Your task to perform on an android device: Add "razer blade" to the cart on newegg, then select checkout. Image 0: 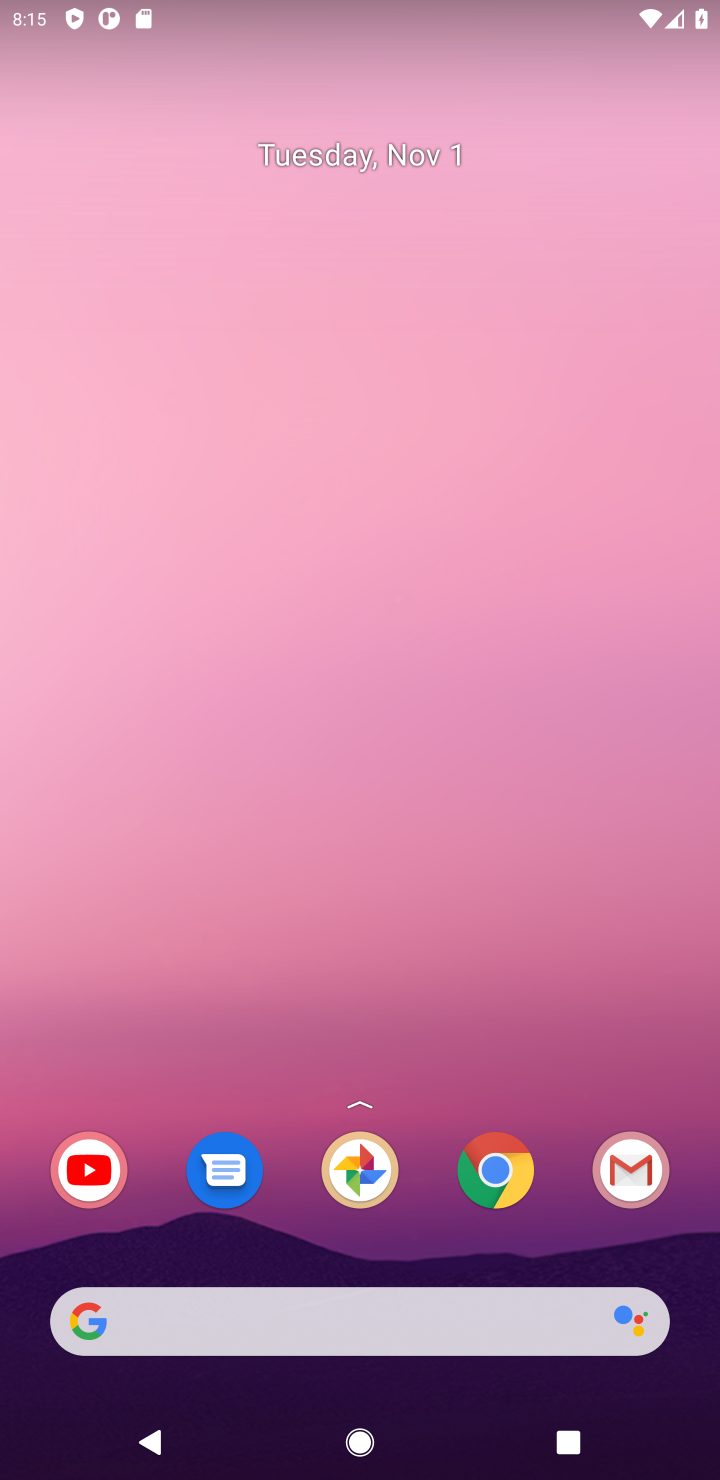
Step 0: click (516, 1175)
Your task to perform on an android device: Add "razer blade" to the cart on newegg, then select checkout. Image 1: 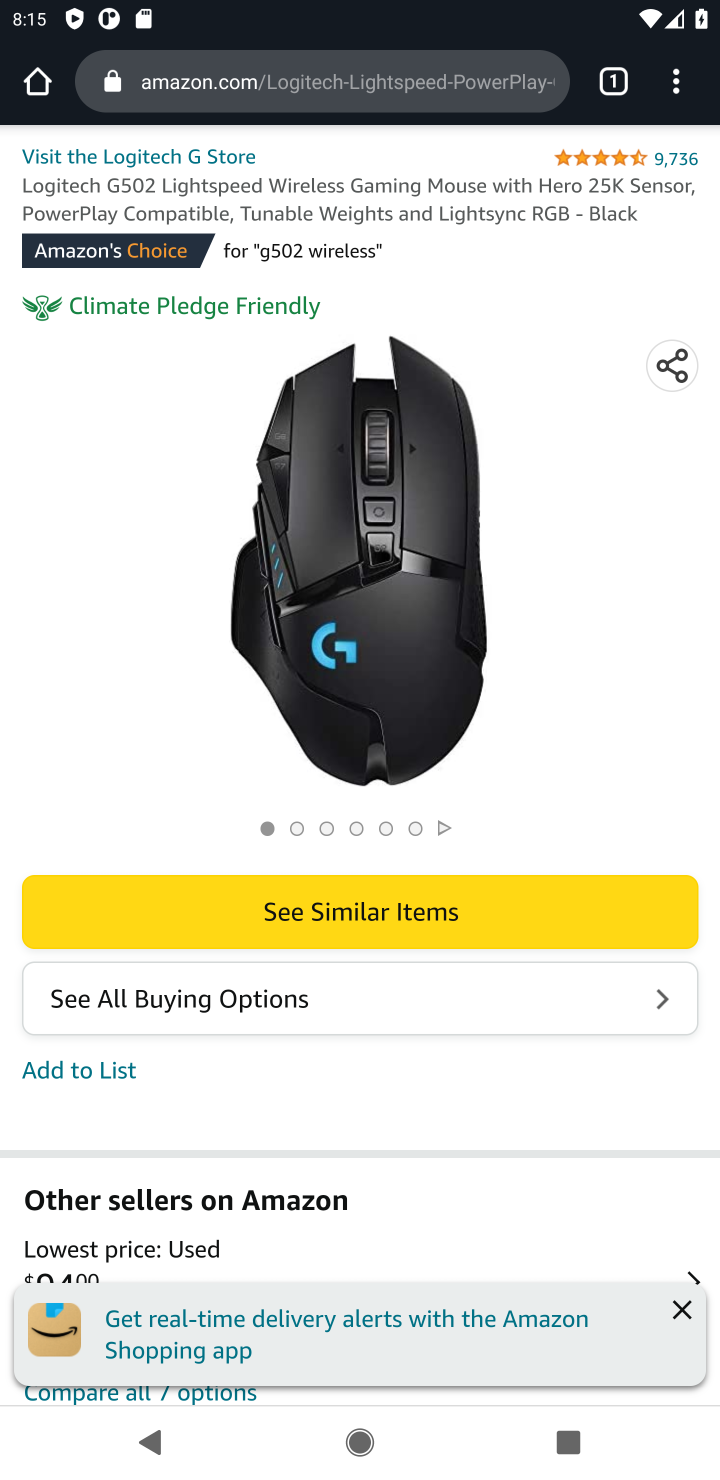
Step 1: click (416, 100)
Your task to perform on an android device: Add "razer blade" to the cart on newegg, then select checkout. Image 2: 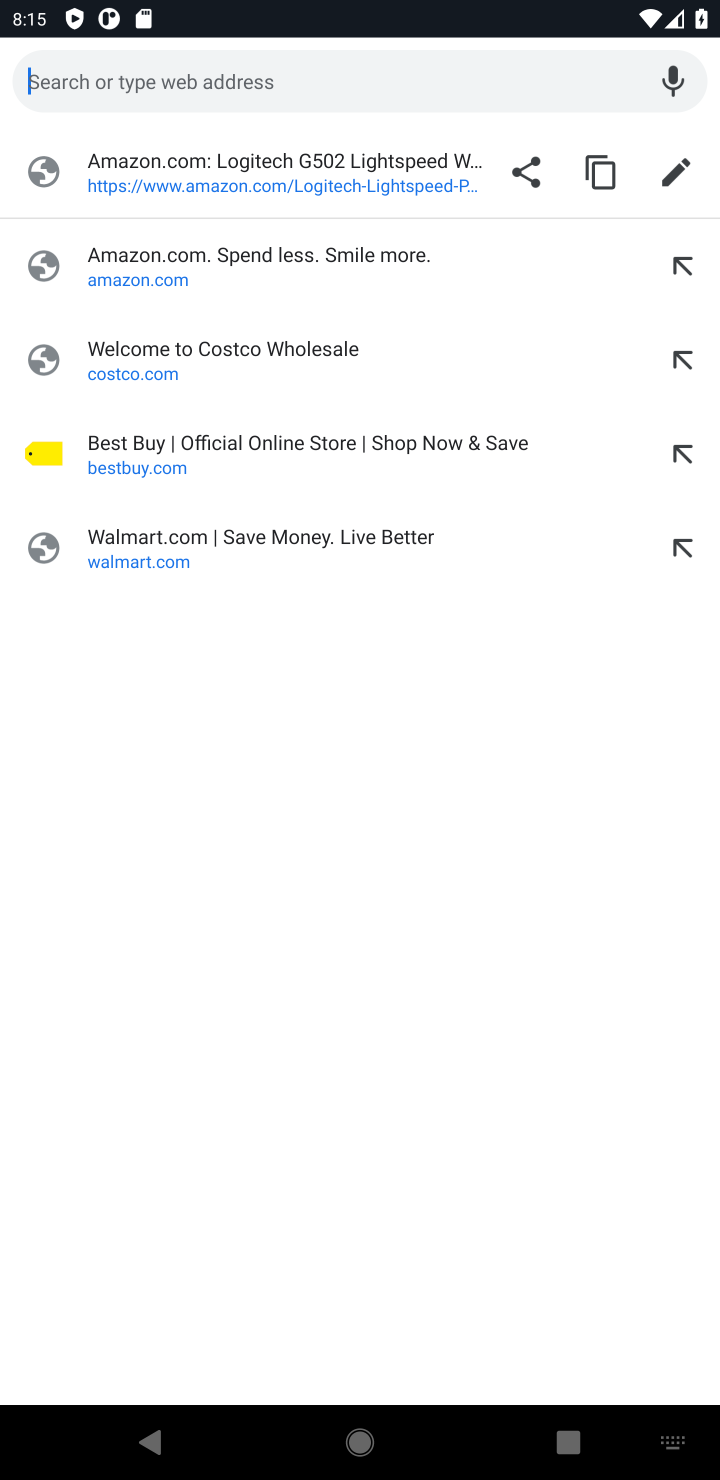
Step 2: type "newegg"
Your task to perform on an android device: Add "razer blade" to the cart on newegg, then select checkout. Image 3: 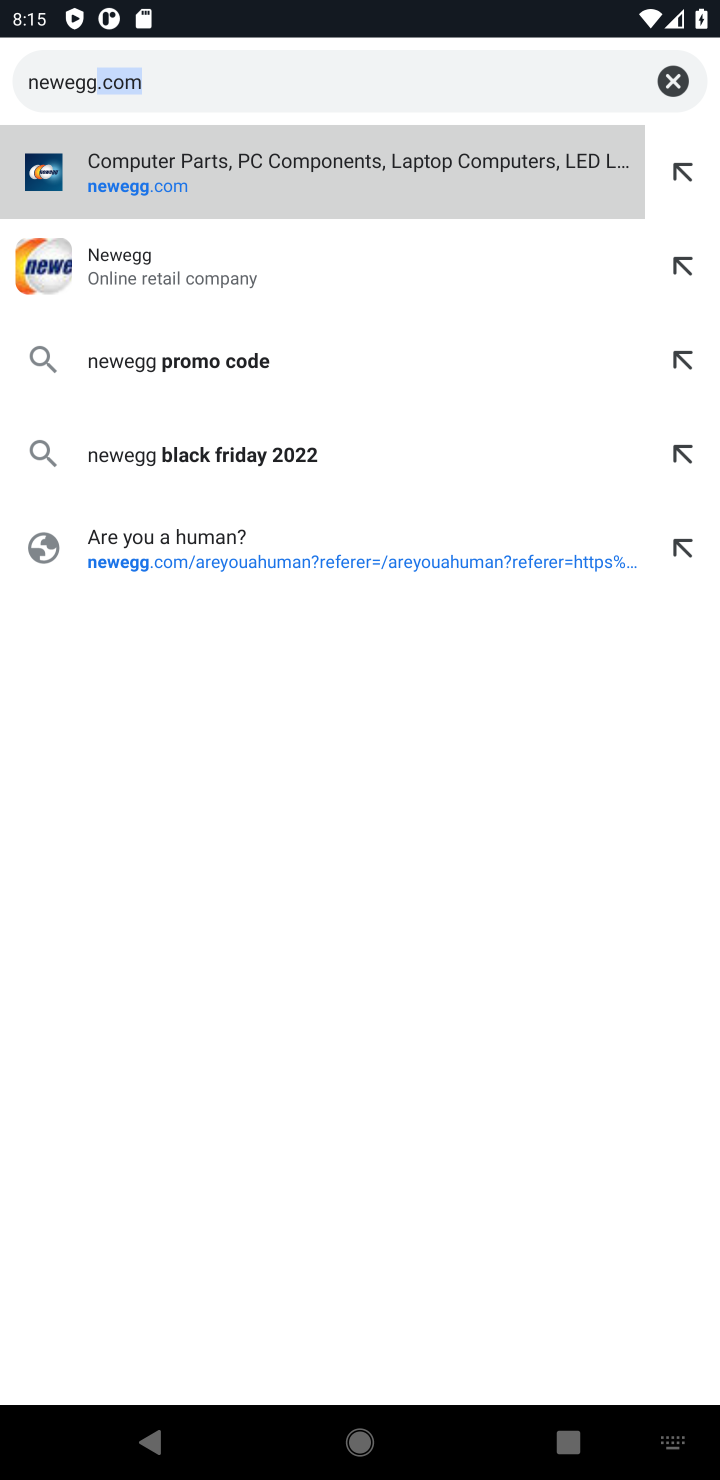
Step 3: press enter
Your task to perform on an android device: Add "razer blade" to the cart on newegg, then select checkout. Image 4: 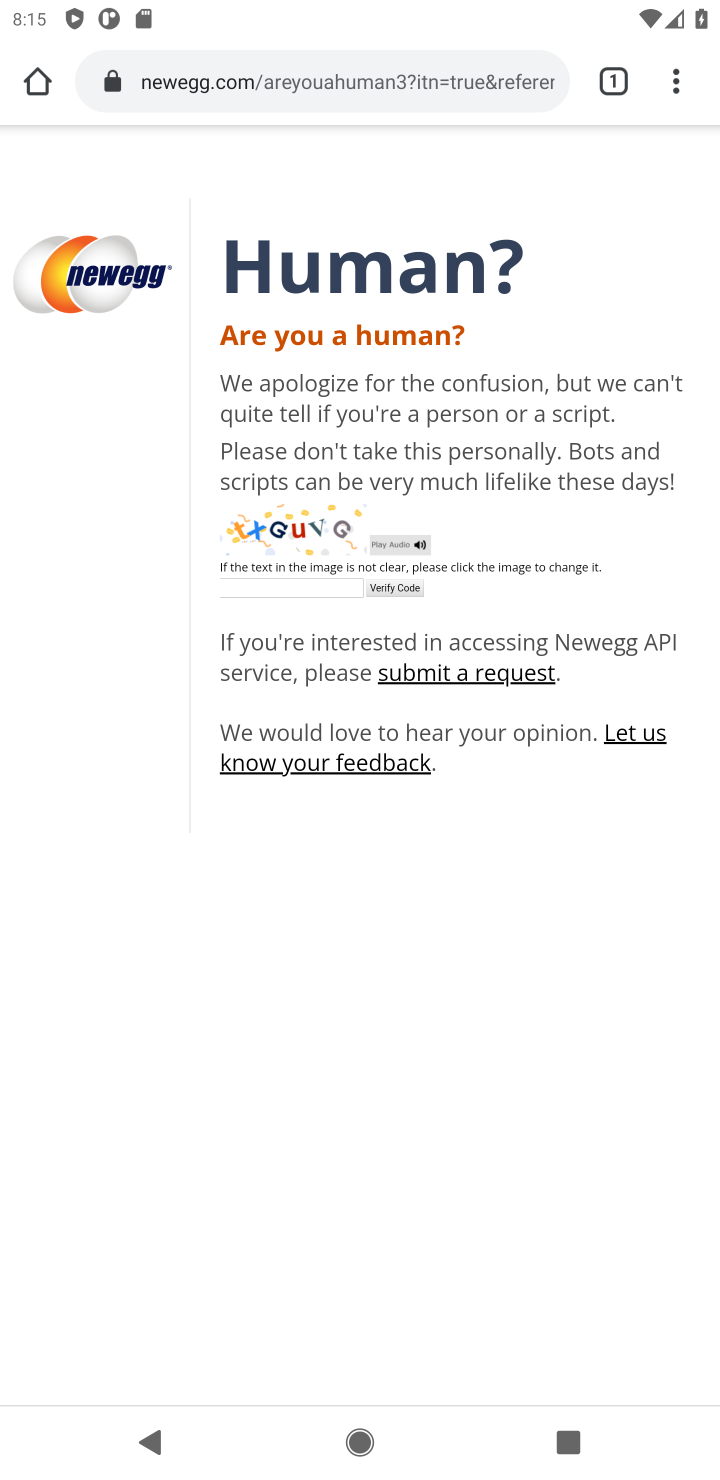
Step 4: click (301, 589)
Your task to perform on an android device: Add "razer blade" to the cart on newegg, then select checkout. Image 5: 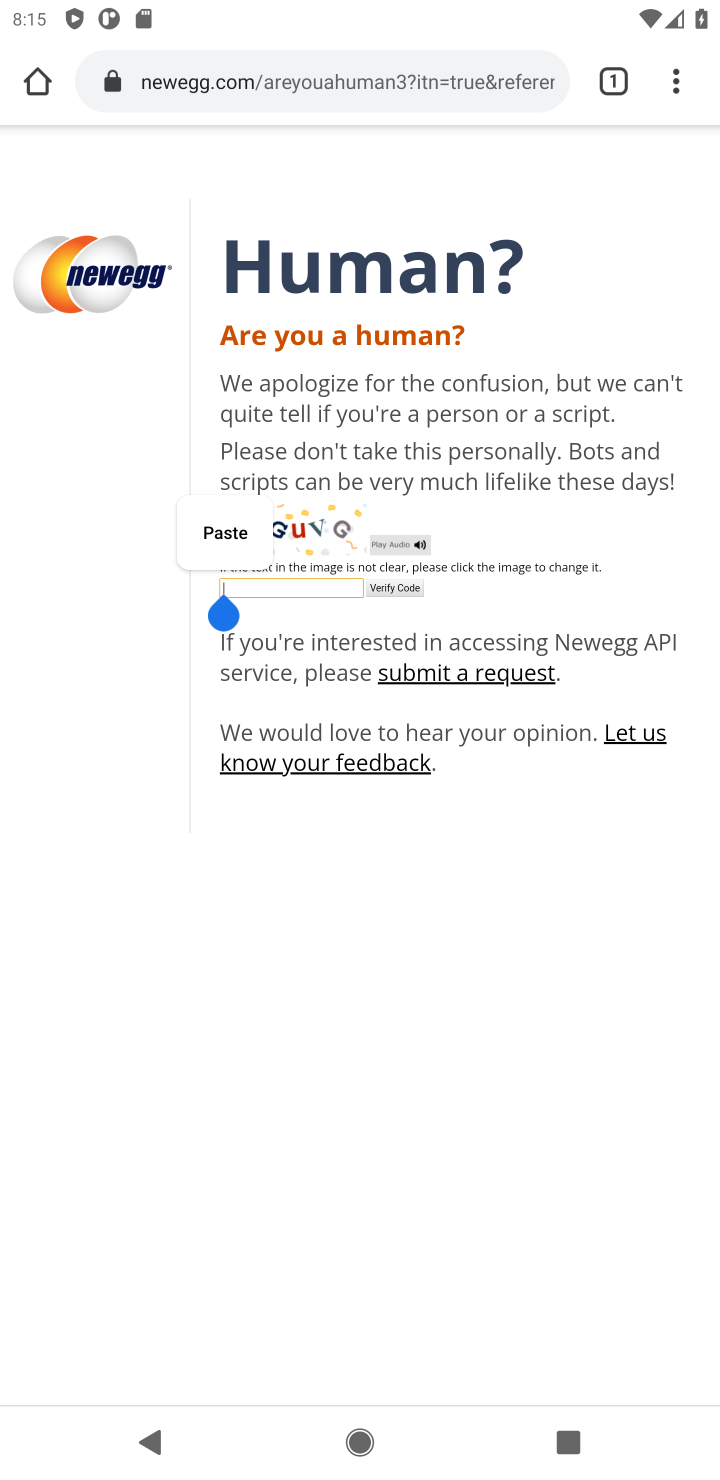
Step 5: click (492, 593)
Your task to perform on an android device: Add "razer blade" to the cart on newegg, then select checkout. Image 6: 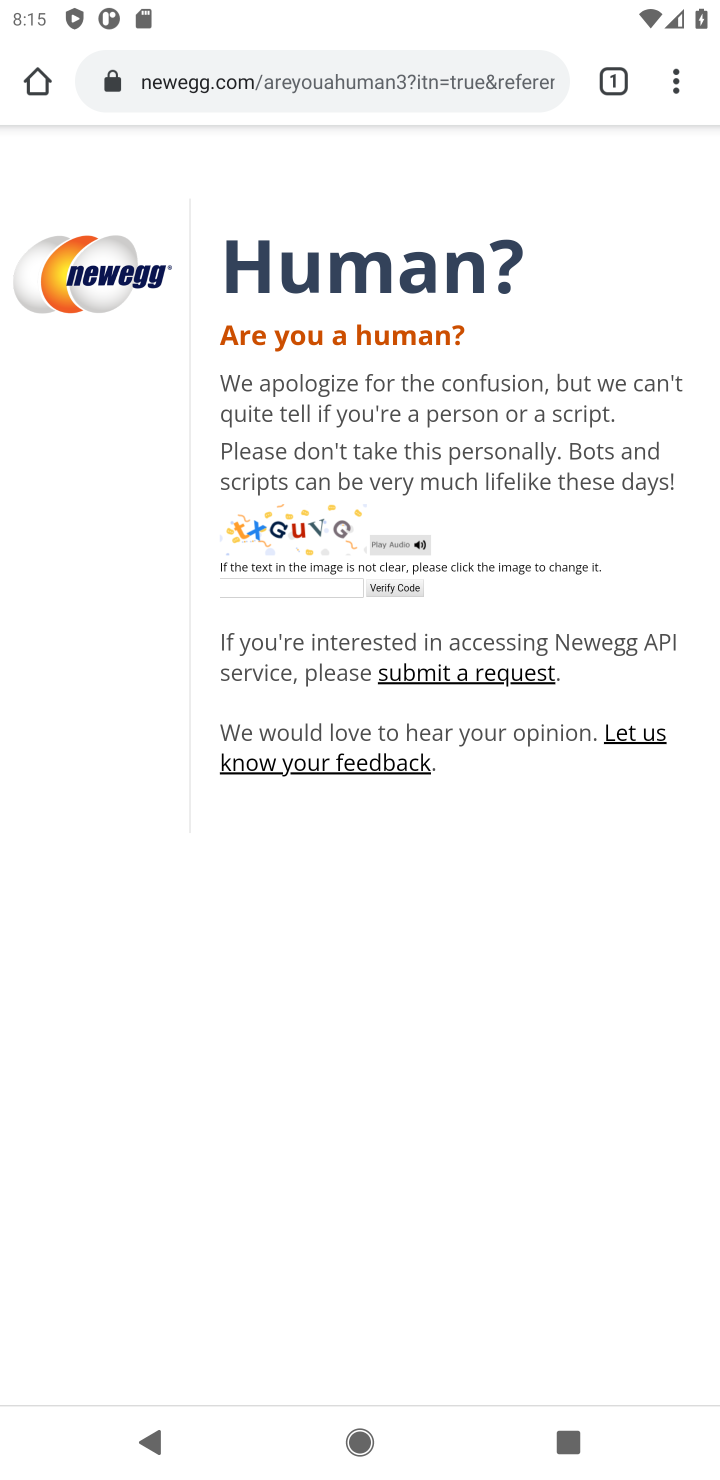
Step 6: click (258, 610)
Your task to perform on an android device: Add "razer blade" to the cart on newegg, then select checkout. Image 7: 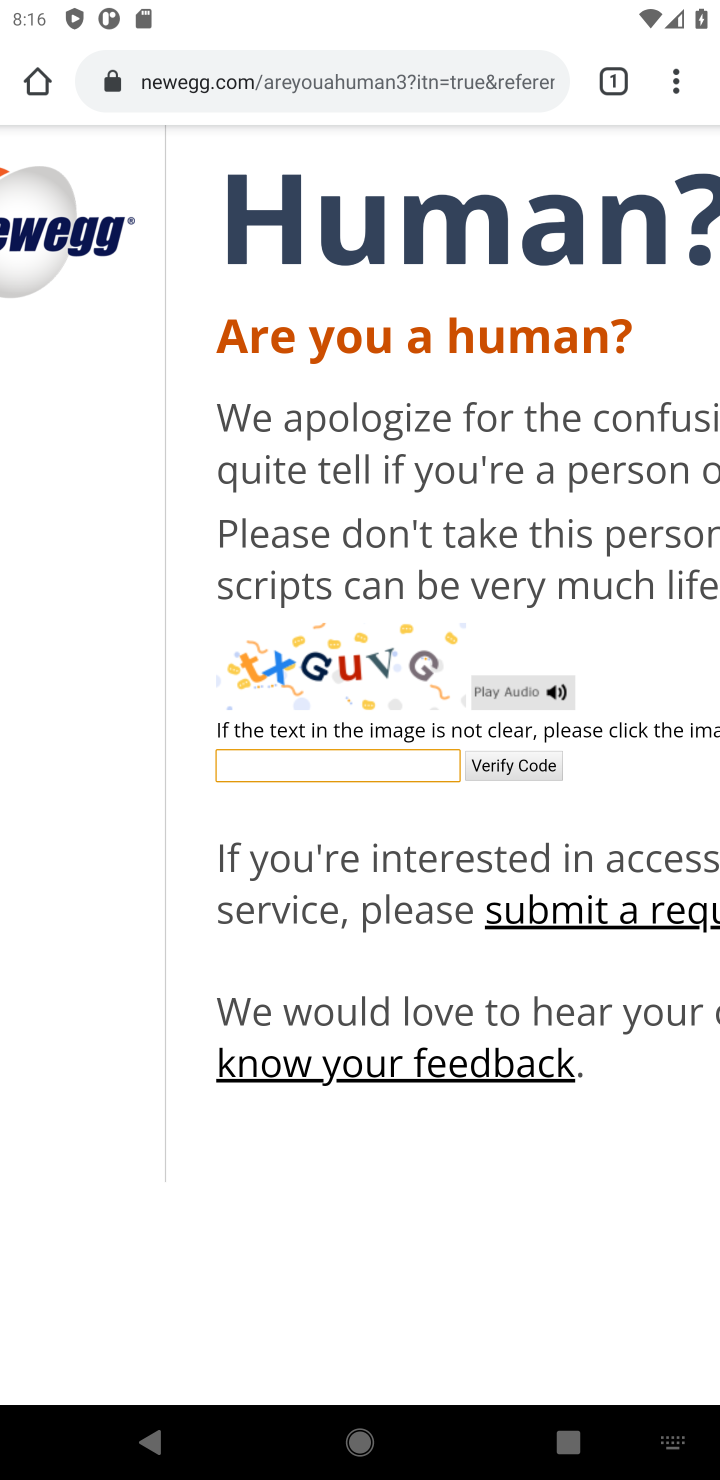
Step 7: type "tXGuVG"
Your task to perform on an android device: Add "razer blade" to the cart on newegg, then select checkout. Image 8: 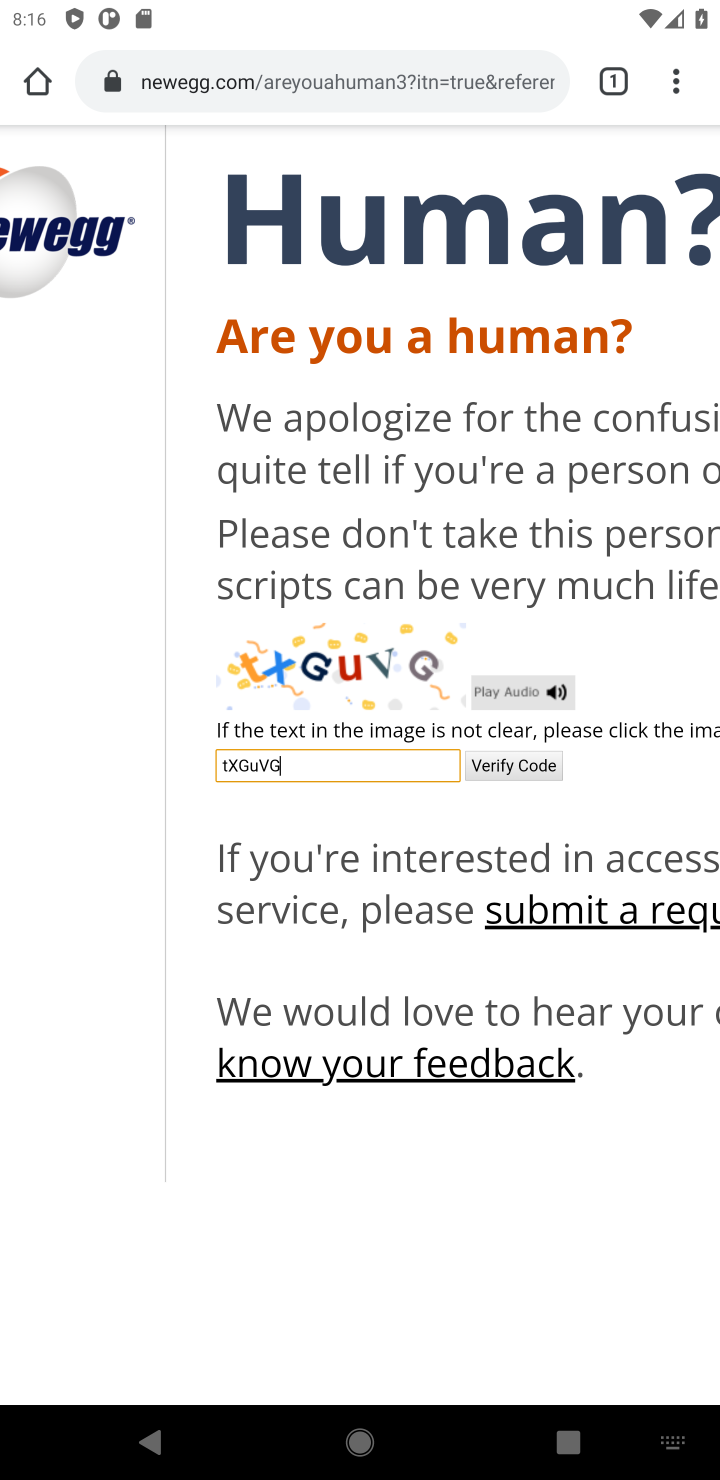
Step 8: click (523, 767)
Your task to perform on an android device: Add "razer blade" to the cart on newegg, then select checkout. Image 9: 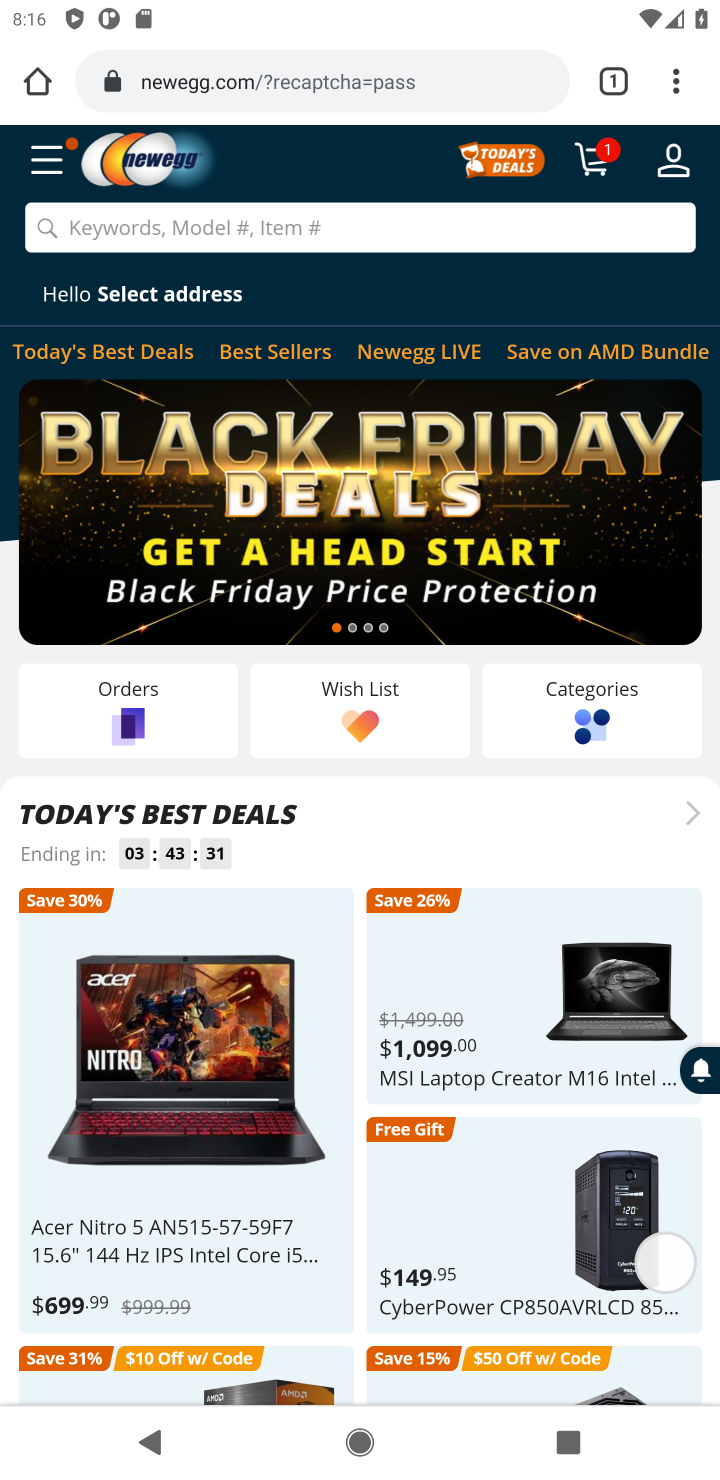
Step 9: drag from (540, 1097) to (529, 1011)
Your task to perform on an android device: Add "razer blade" to the cart on newegg, then select checkout. Image 10: 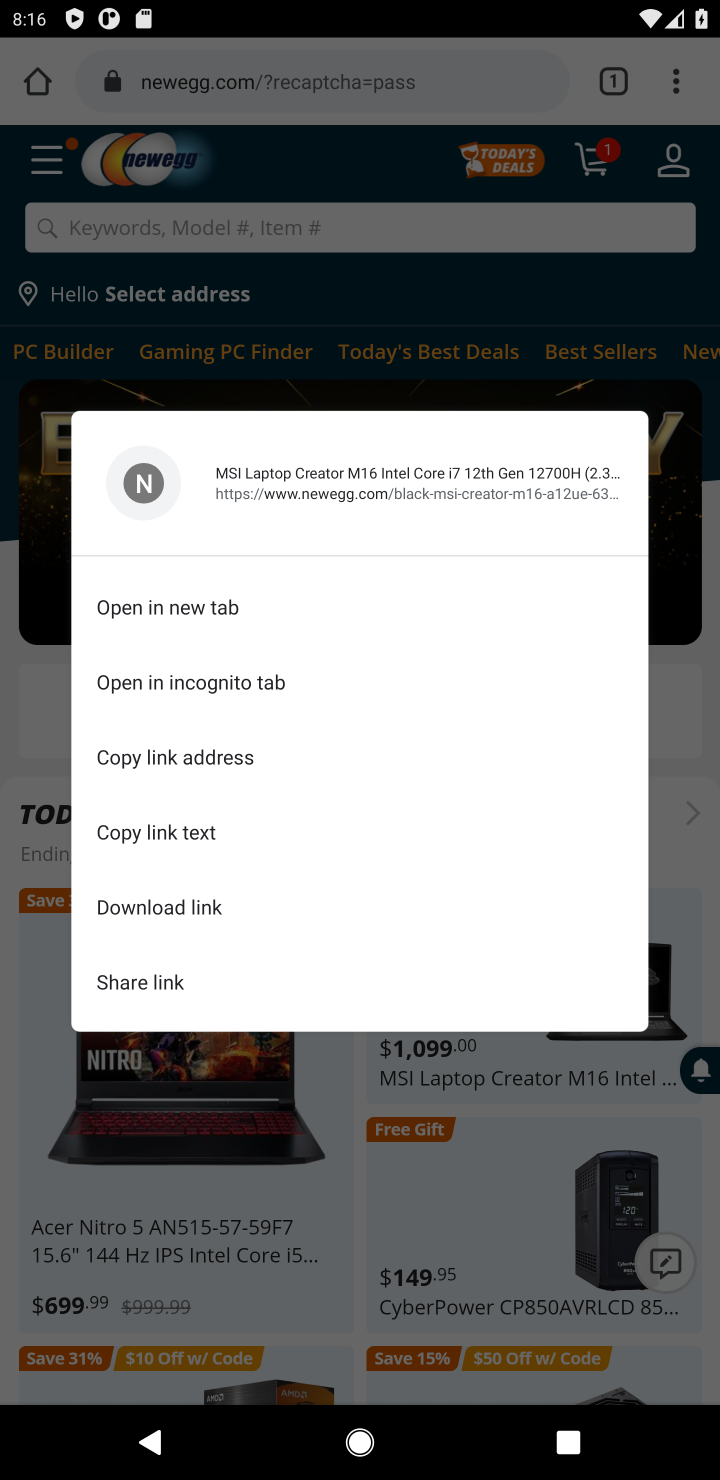
Step 10: press back button
Your task to perform on an android device: Add "razer blade" to the cart on newegg, then select checkout. Image 11: 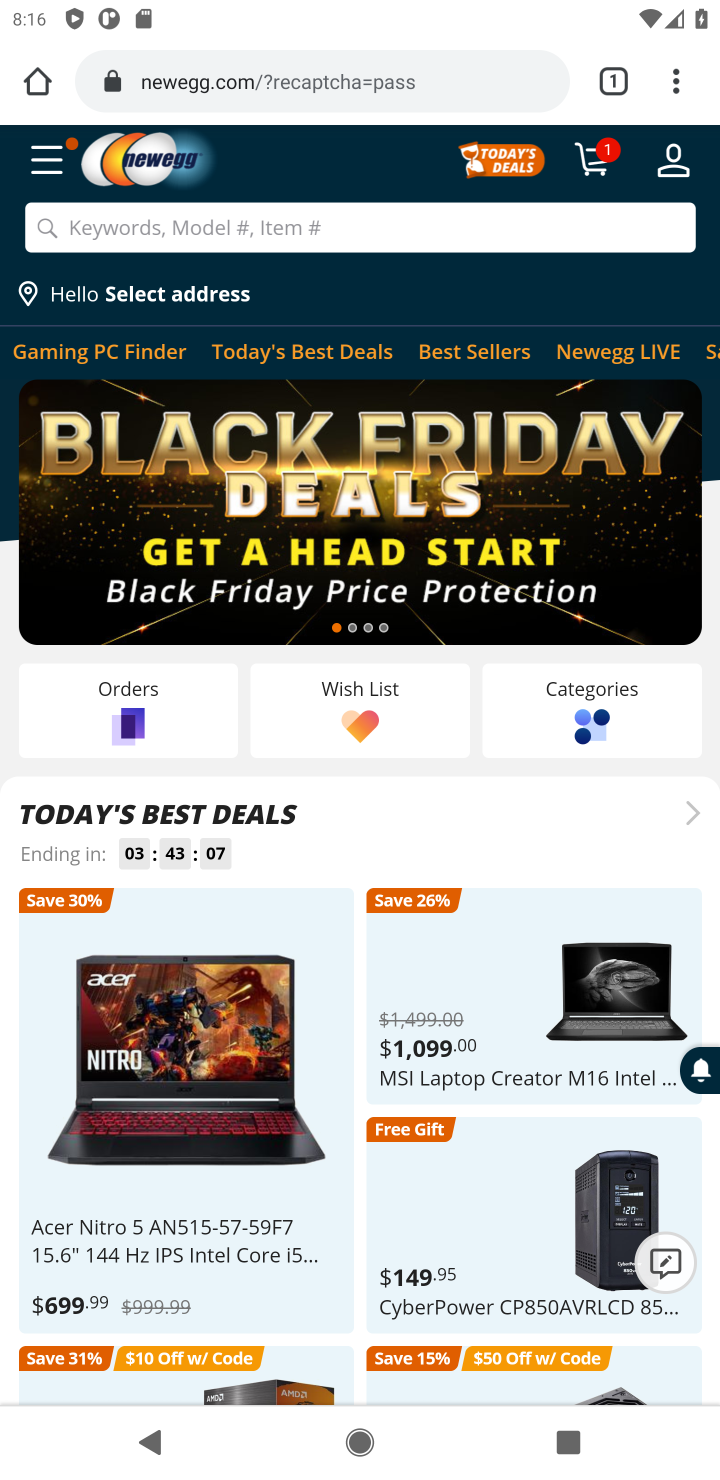
Step 11: click (242, 217)
Your task to perform on an android device: Add "razer blade" to the cart on newegg, then select checkout. Image 12: 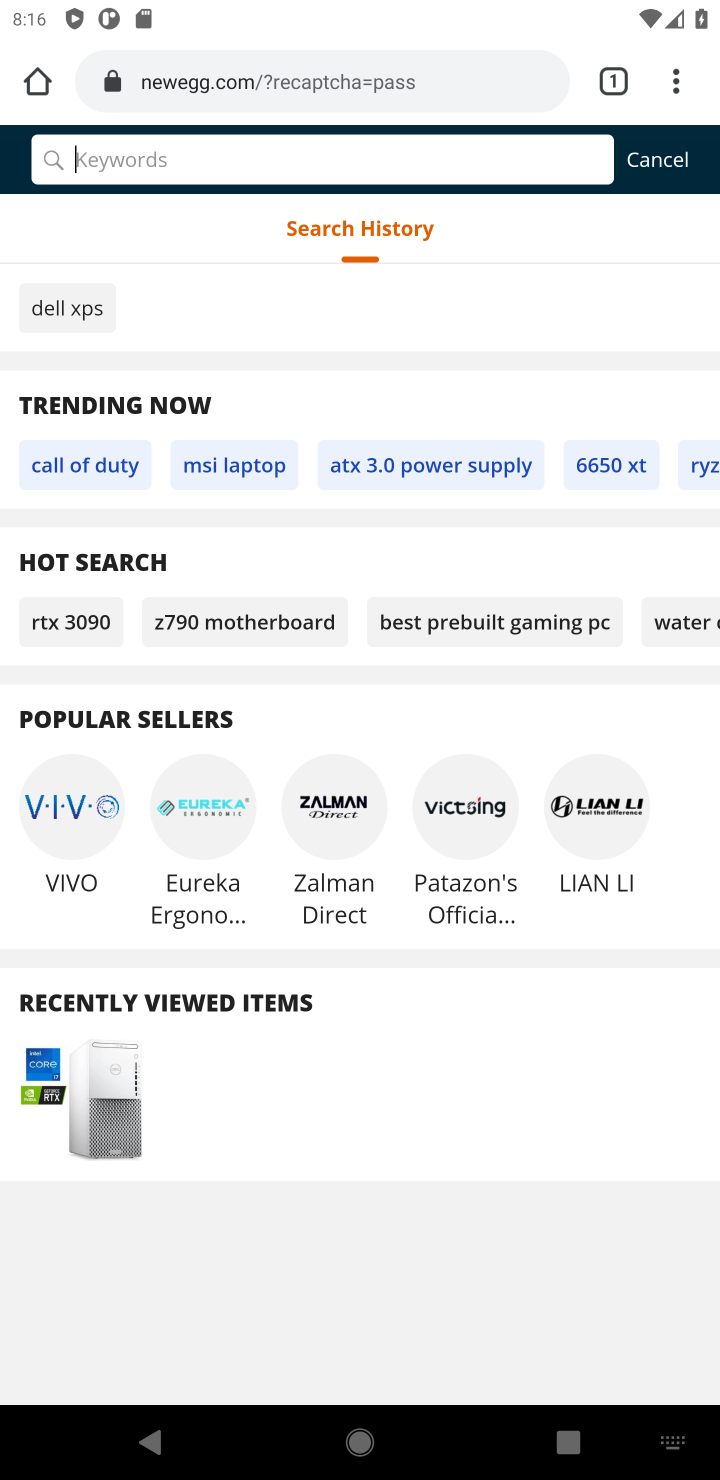
Step 12: type "razer blade"
Your task to perform on an android device: Add "razer blade" to the cart on newegg, then select checkout. Image 13: 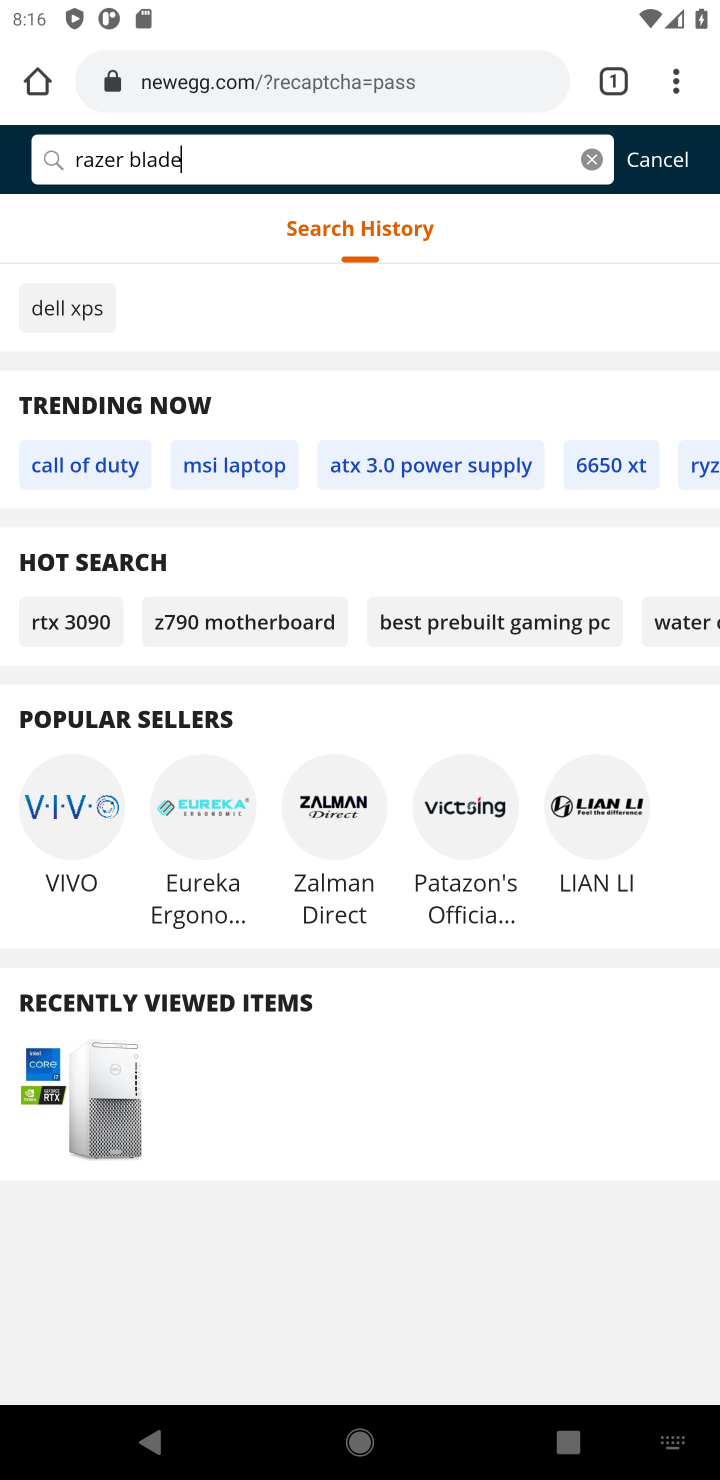
Step 13: type ""
Your task to perform on an android device: Add "razer blade" to the cart on newegg, then select checkout. Image 14: 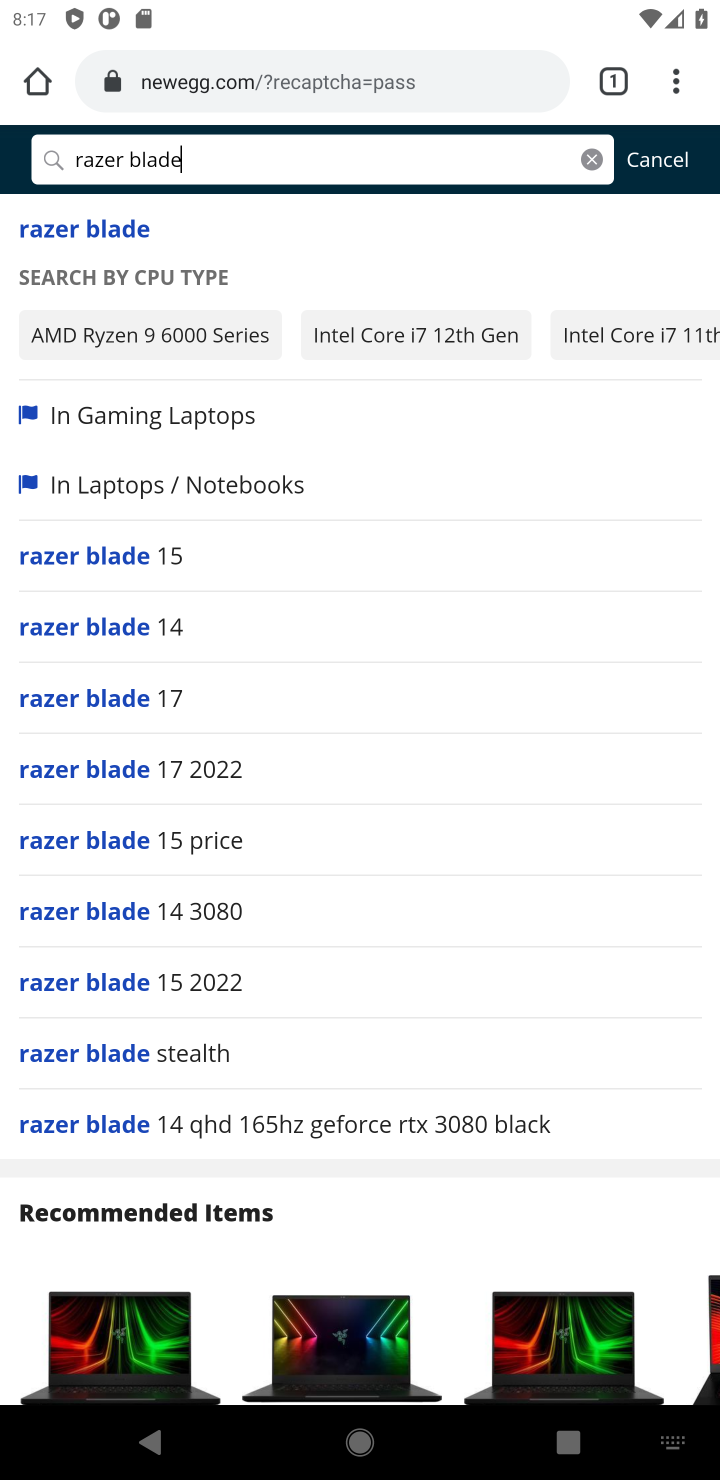
Step 14: press enter
Your task to perform on an android device: Add "razer blade" to the cart on newegg, then select checkout. Image 15: 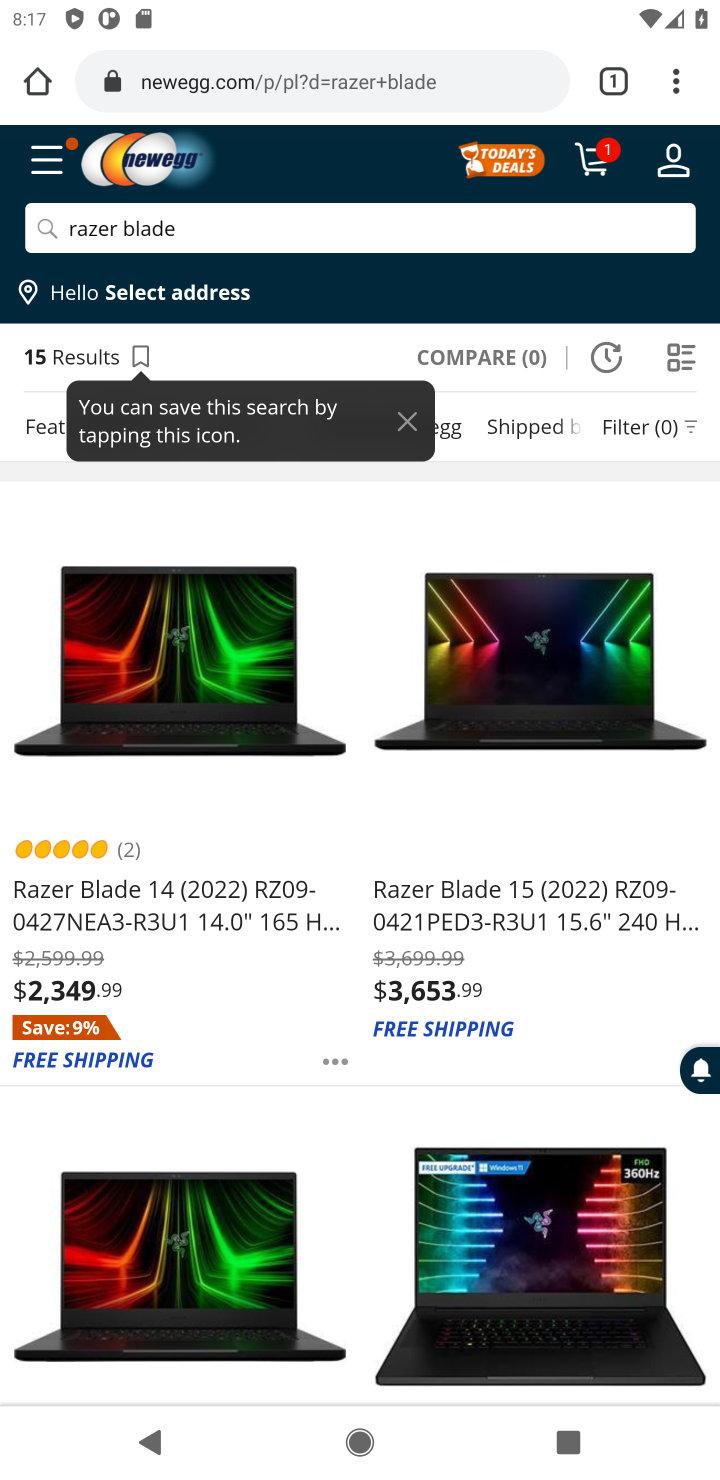
Step 15: click (255, 879)
Your task to perform on an android device: Add "razer blade" to the cart on newegg, then select checkout. Image 16: 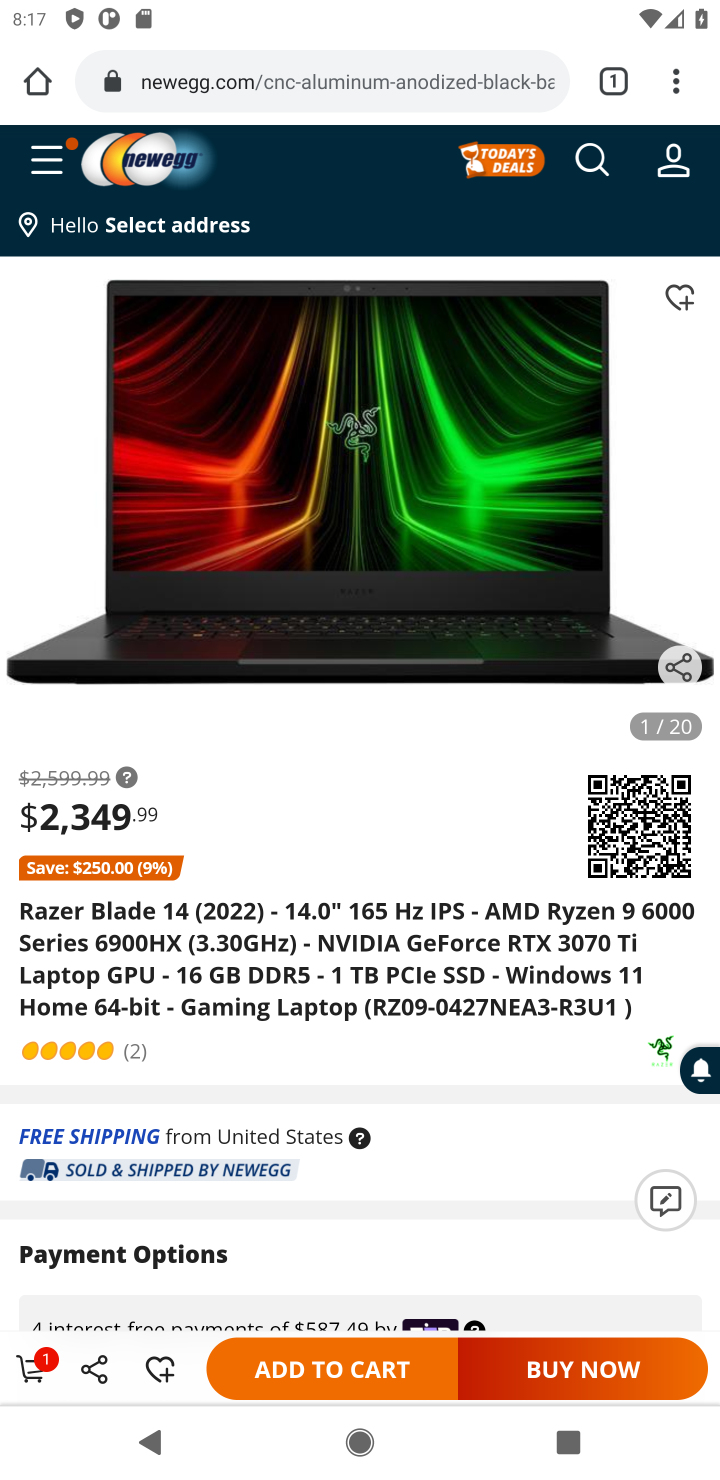
Step 16: drag from (381, 1099) to (364, 724)
Your task to perform on an android device: Add "razer blade" to the cart on newegg, then select checkout. Image 17: 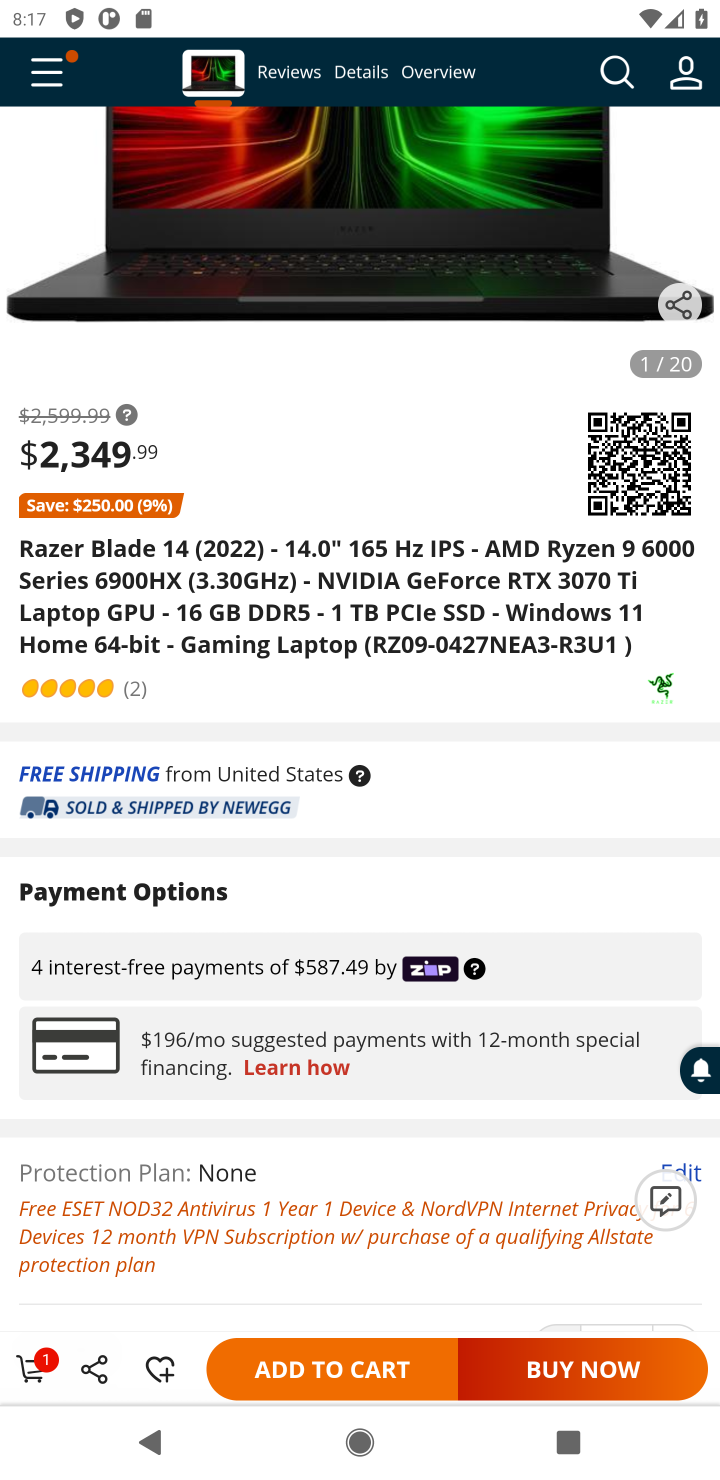
Step 17: click (364, 1371)
Your task to perform on an android device: Add "razer blade" to the cart on newegg, then select checkout. Image 18: 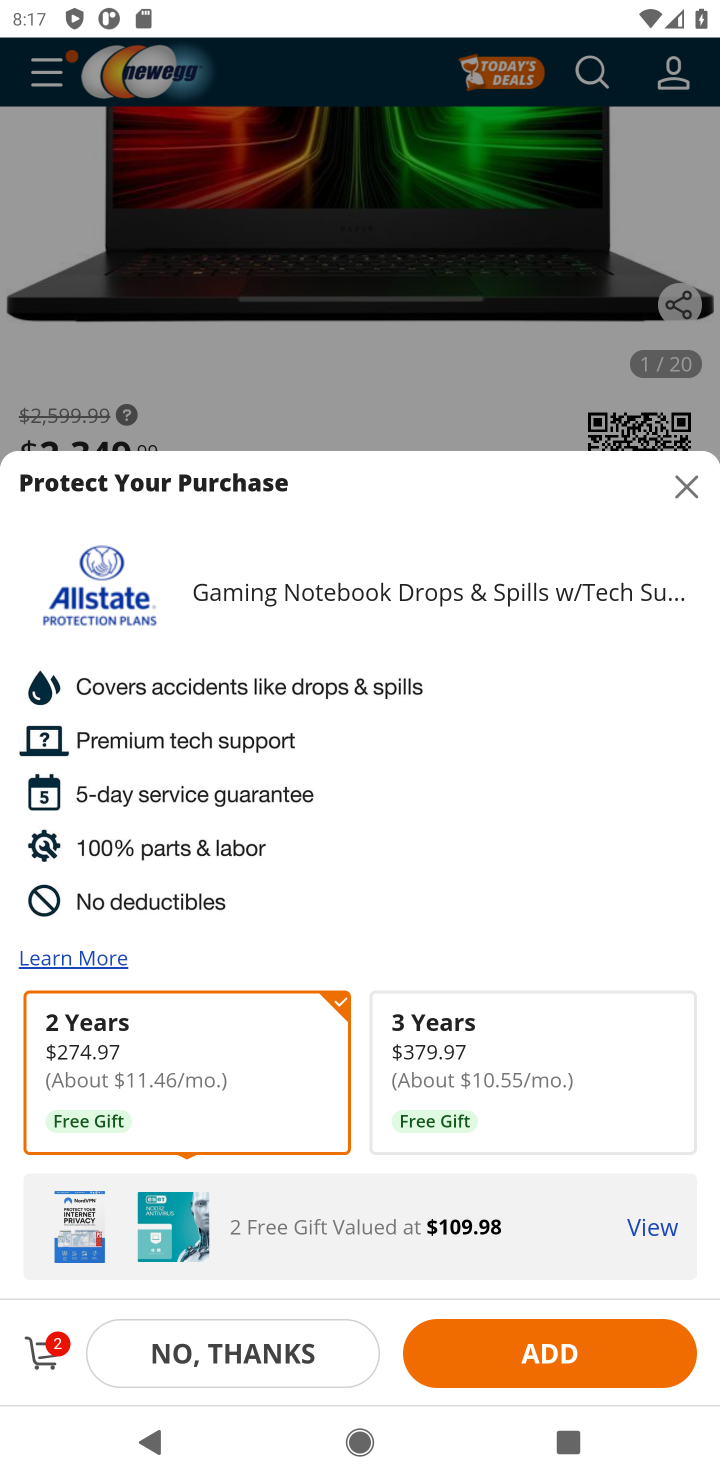
Step 18: click (250, 1352)
Your task to perform on an android device: Add "razer blade" to the cart on newegg, then select checkout. Image 19: 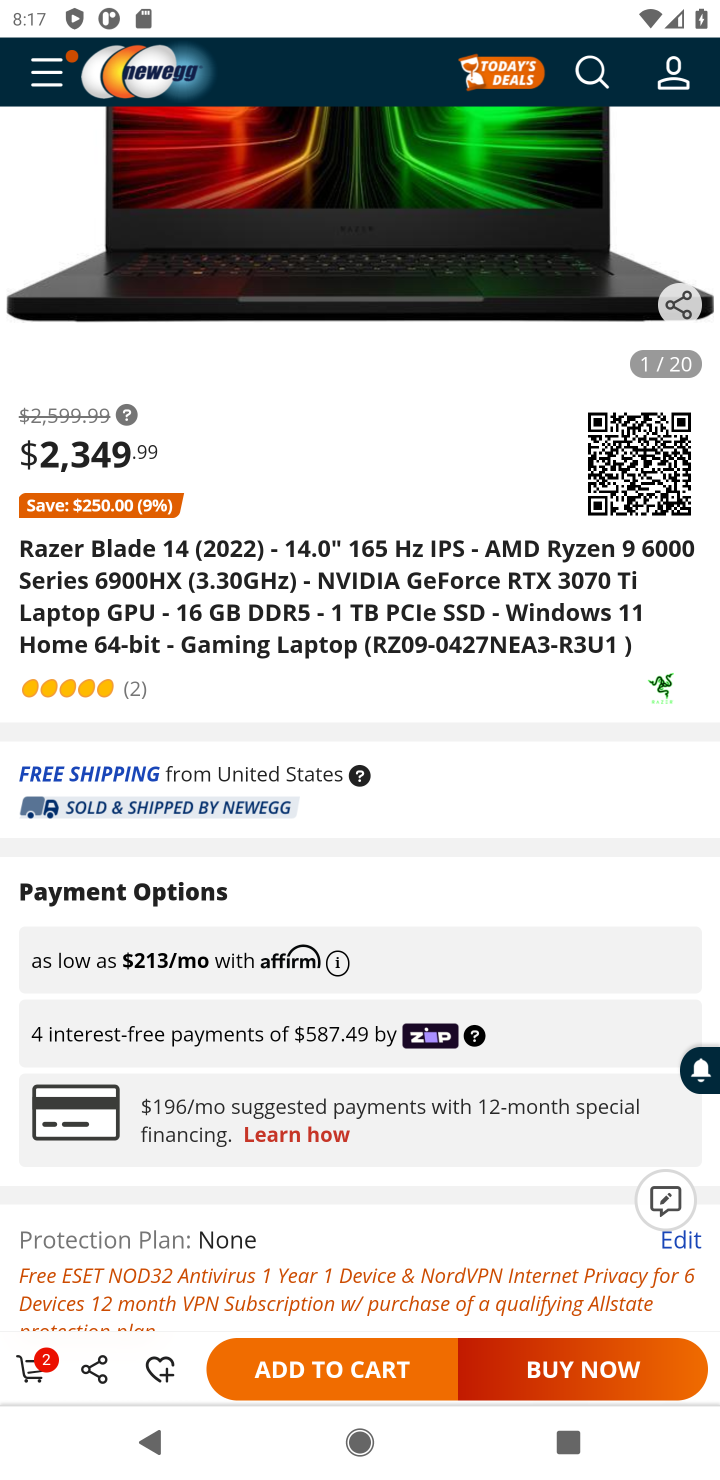
Step 19: click (40, 1368)
Your task to perform on an android device: Add "razer blade" to the cart on newegg, then select checkout. Image 20: 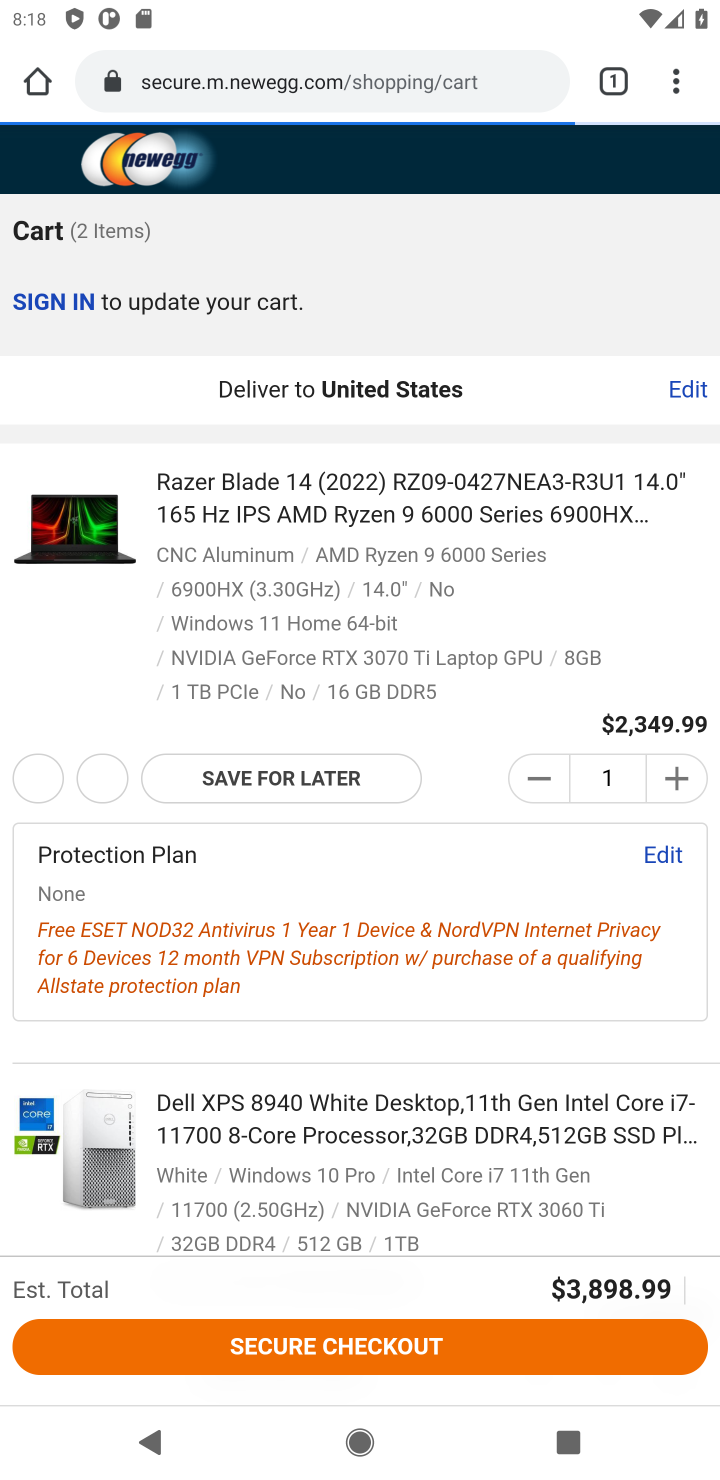
Step 20: click (347, 1353)
Your task to perform on an android device: Add "razer blade" to the cart on newegg, then select checkout. Image 21: 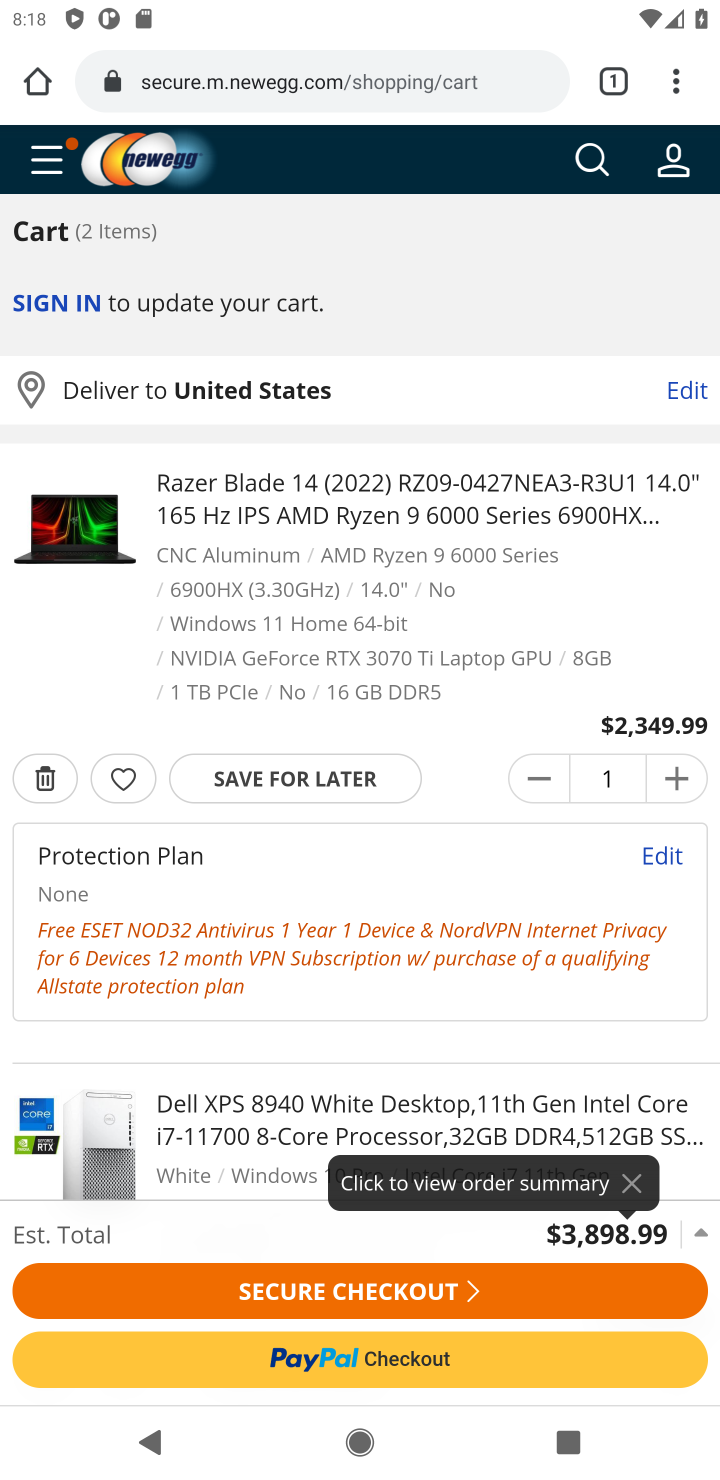
Step 21: click (382, 1283)
Your task to perform on an android device: Add "razer blade" to the cart on newegg, then select checkout. Image 22: 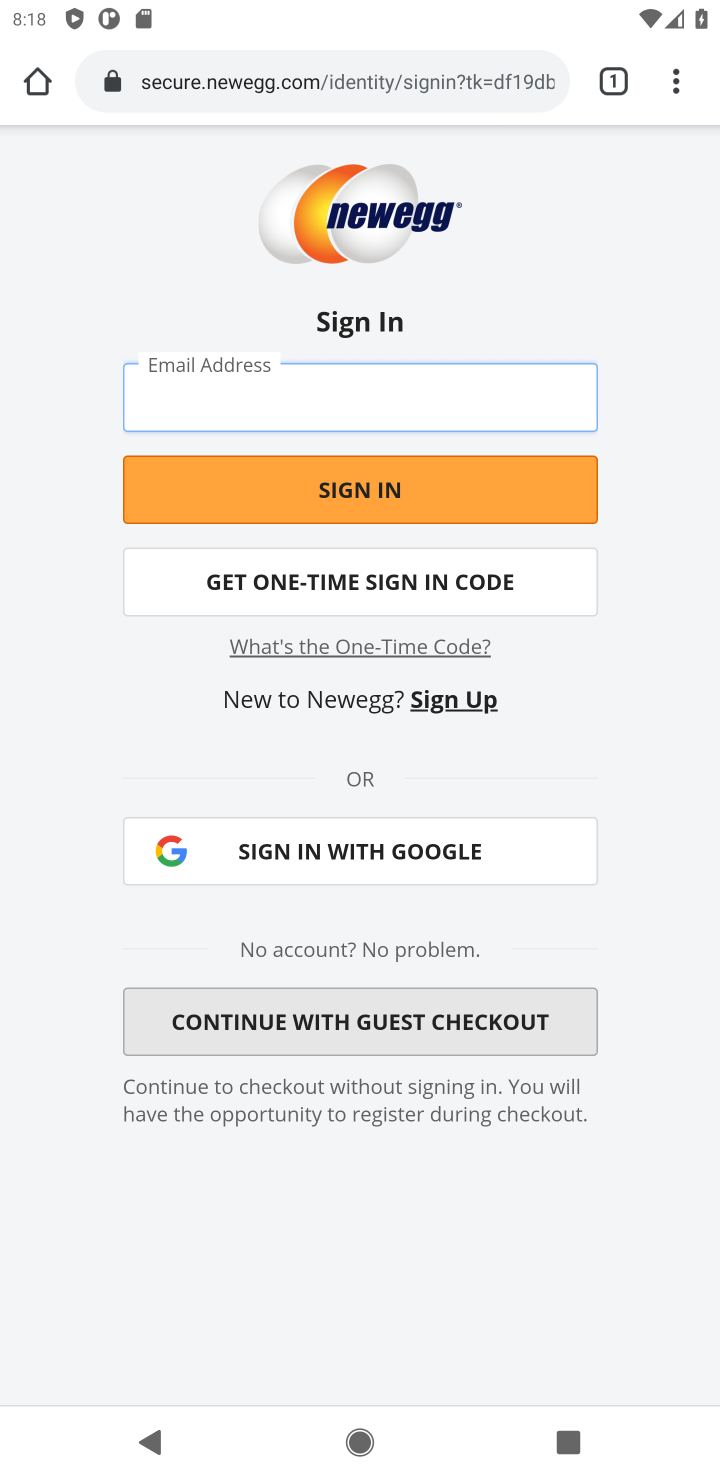
Step 22: task complete